Your task to perform on an android device: Open the phone app and click the voicemail tab. Image 0: 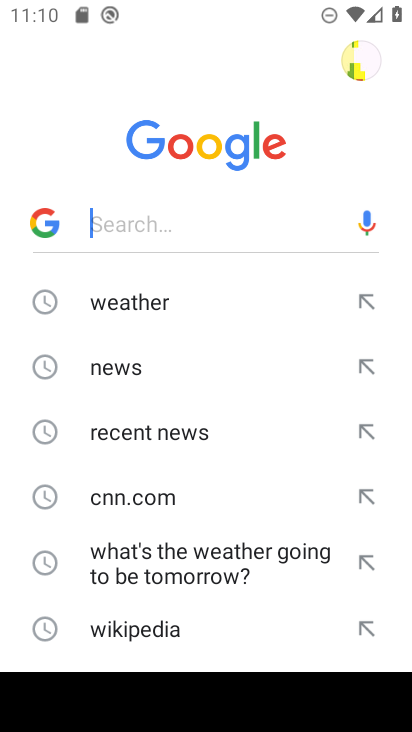
Step 0: press home button
Your task to perform on an android device: Open the phone app and click the voicemail tab. Image 1: 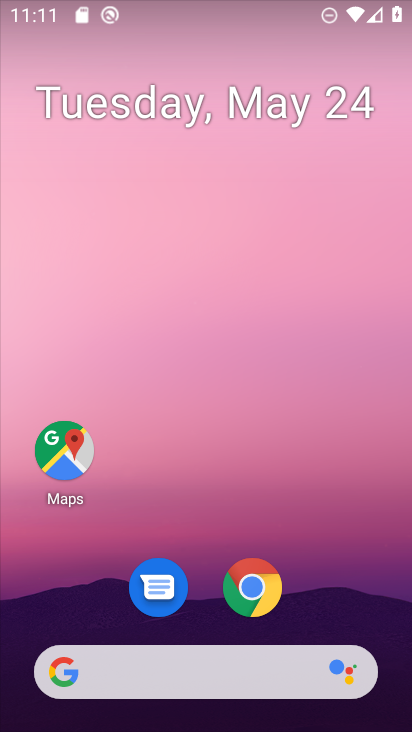
Step 1: drag from (377, 631) to (333, 121)
Your task to perform on an android device: Open the phone app and click the voicemail tab. Image 2: 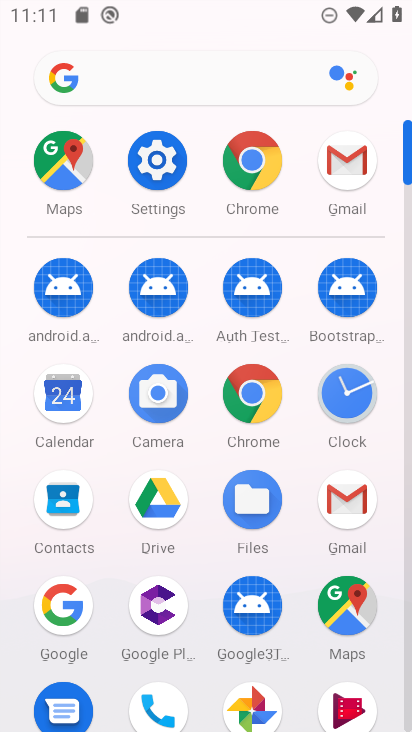
Step 2: click (136, 710)
Your task to perform on an android device: Open the phone app and click the voicemail tab. Image 3: 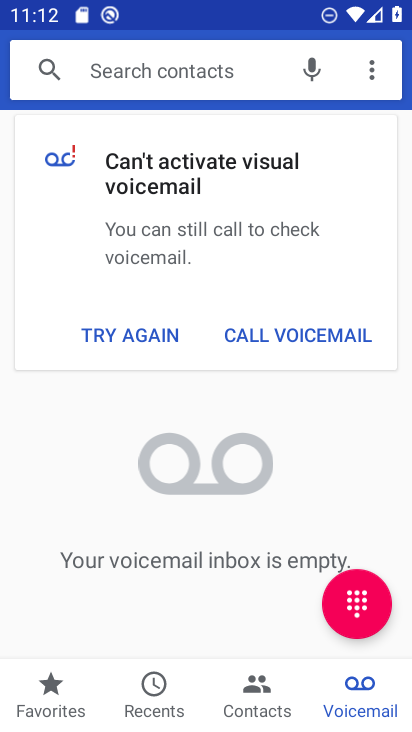
Step 3: task complete